Your task to perform on an android device: Open Google Chrome Image 0: 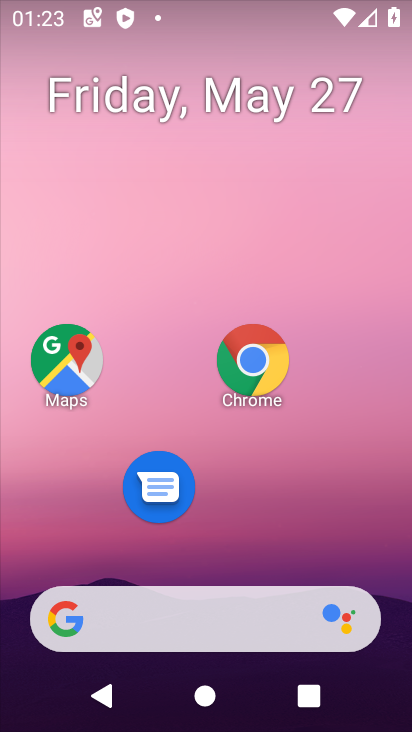
Step 0: click (251, 361)
Your task to perform on an android device: Open Google Chrome Image 1: 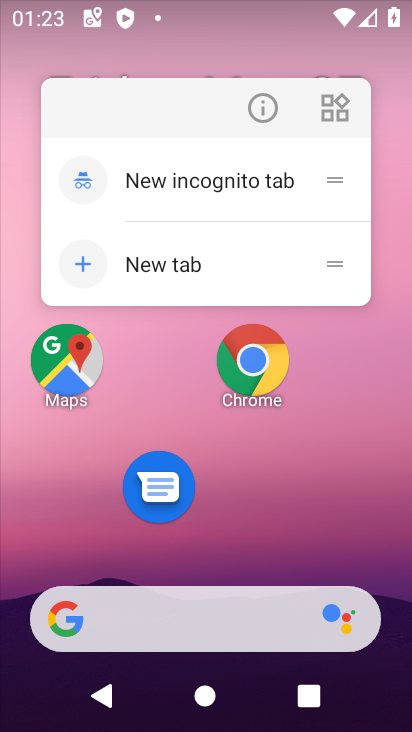
Step 1: click (251, 361)
Your task to perform on an android device: Open Google Chrome Image 2: 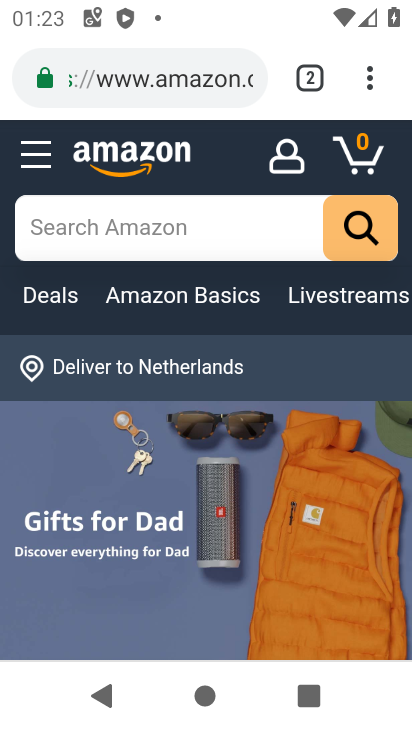
Step 2: task complete